Your task to perform on an android device: Show me recent news Image 0: 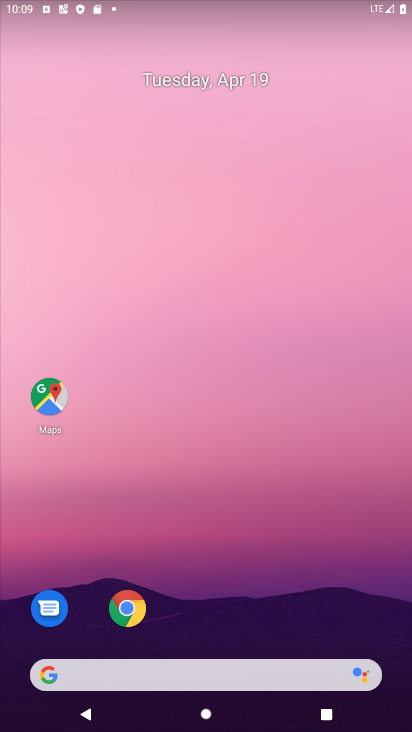
Step 0: drag from (376, 628) to (328, 196)
Your task to perform on an android device: Show me recent news Image 1: 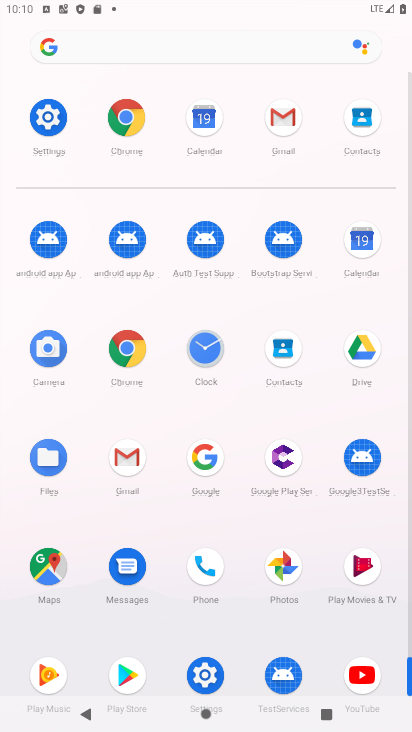
Step 1: task complete